Your task to perform on an android device: Go to privacy settings Image 0: 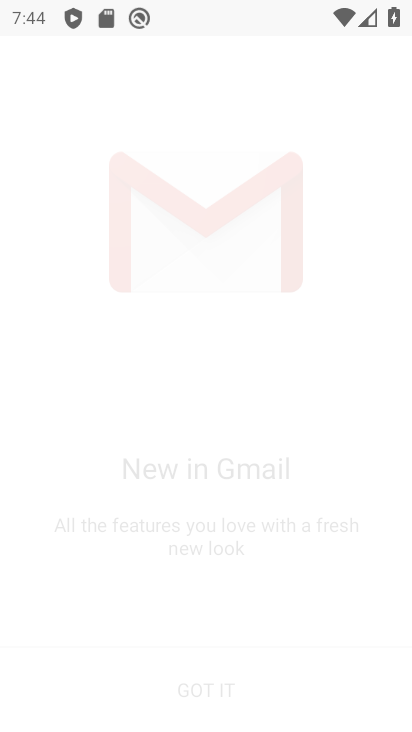
Step 0: drag from (204, 538) to (255, 5)
Your task to perform on an android device: Go to privacy settings Image 1: 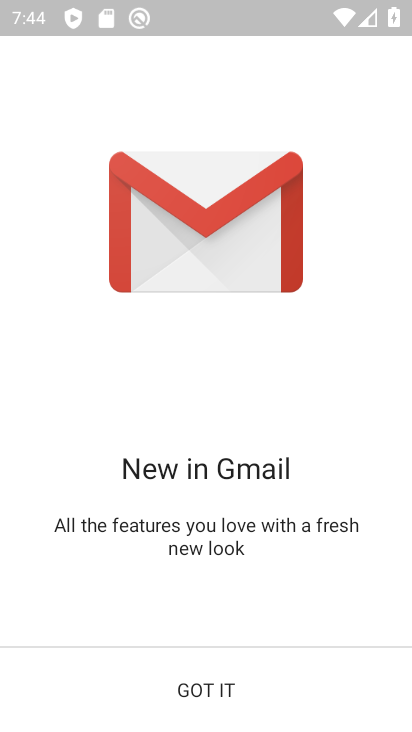
Step 1: press home button
Your task to perform on an android device: Go to privacy settings Image 2: 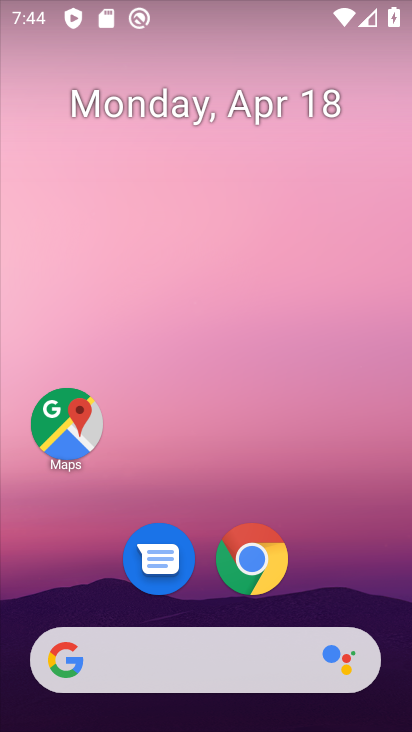
Step 2: drag from (187, 506) to (251, 19)
Your task to perform on an android device: Go to privacy settings Image 3: 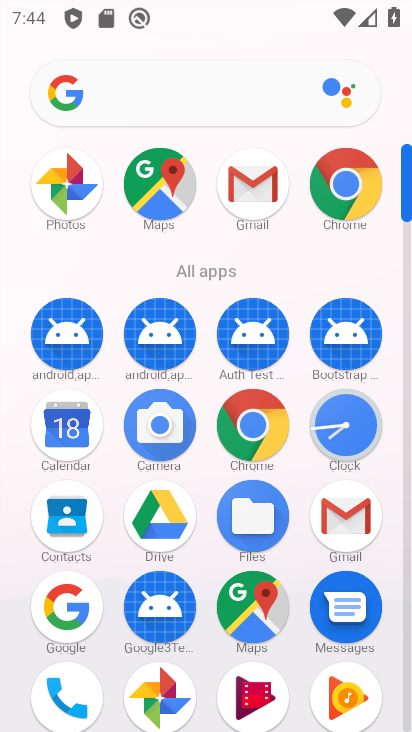
Step 3: drag from (198, 618) to (221, 259)
Your task to perform on an android device: Go to privacy settings Image 4: 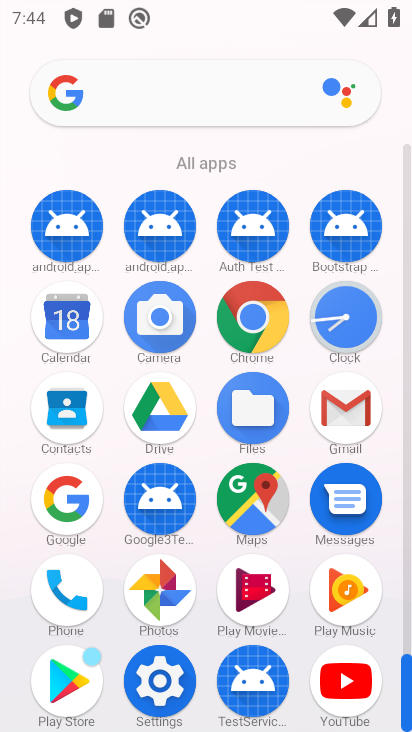
Step 4: click (163, 672)
Your task to perform on an android device: Go to privacy settings Image 5: 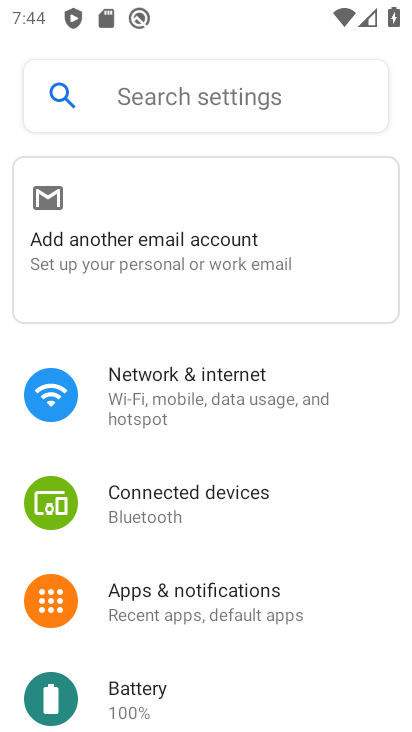
Step 5: drag from (225, 661) to (198, 220)
Your task to perform on an android device: Go to privacy settings Image 6: 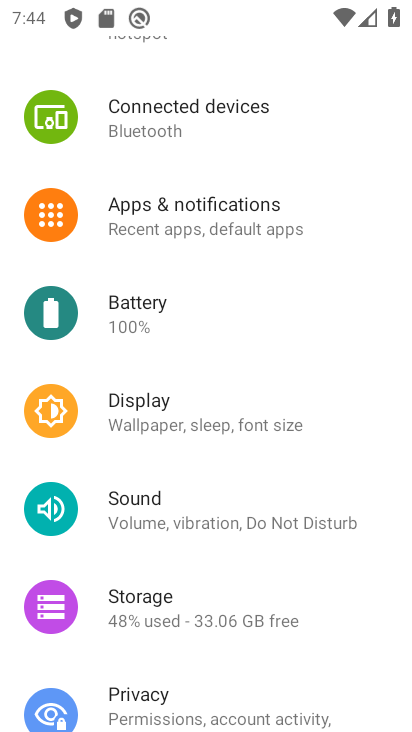
Step 6: click (179, 714)
Your task to perform on an android device: Go to privacy settings Image 7: 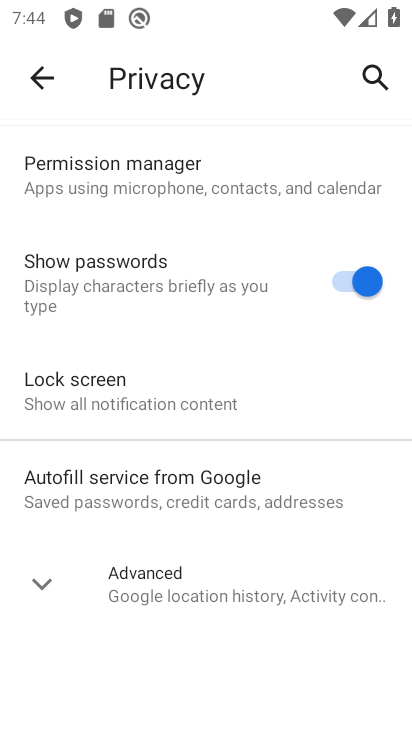
Step 7: task complete